Your task to perform on an android device: open the mobile data screen to see how much data has been used Image 0: 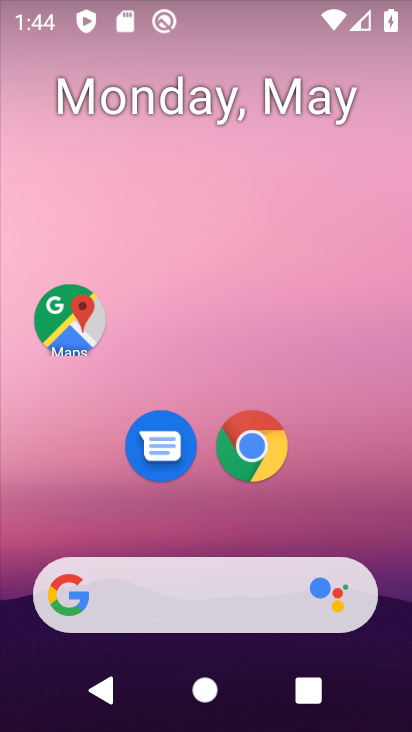
Step 0: press home button
Your task to perform on an android device: open the mobile data screen to see how much data has been used Image 1: 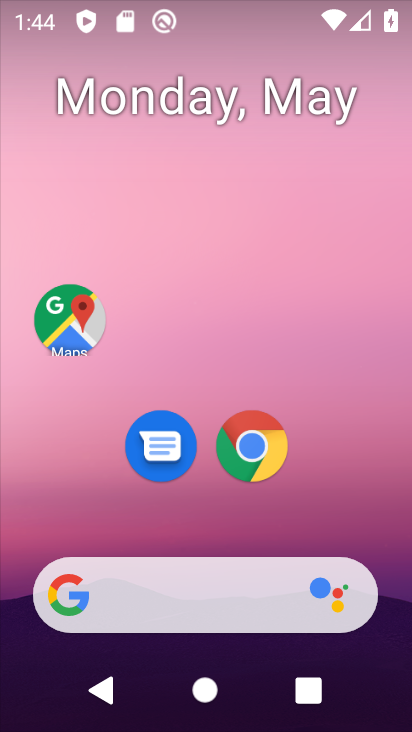
Step 1: drag from (367, 513) to (369, 171)
Your task to perform on an android device: open the mobile data screen to see how much data has been used Image 2: 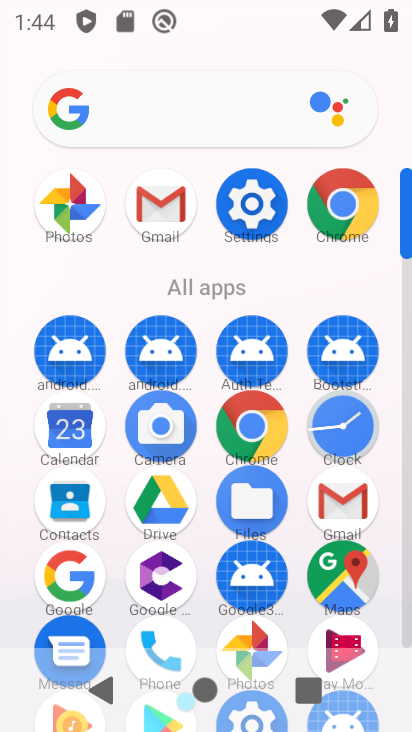
Step 2: click (249, 215)
Your task to perform on an android device: open the mobile data screen to see how much data has been used Image 3: 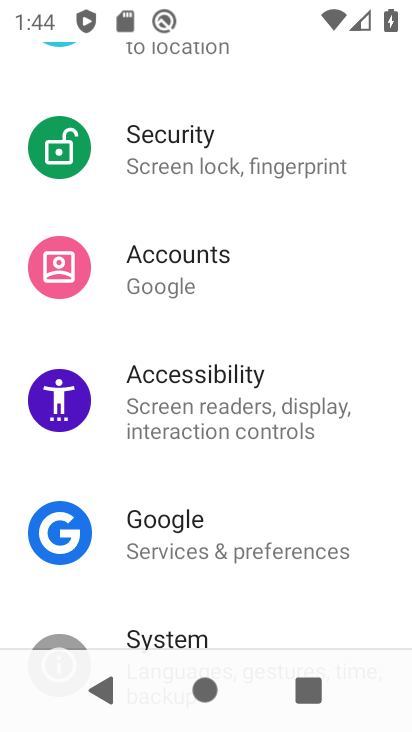
Step 3: drag from (239, 151) to (219, 554)
Your task to perform on an android device: open the mobile data screen to see how much data has been used Image 4: 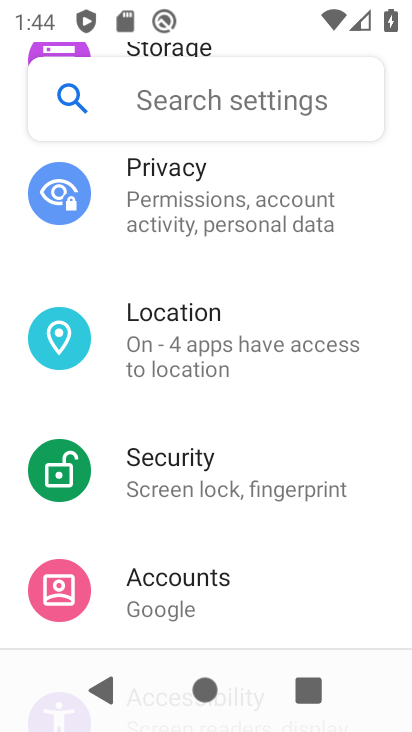
Step 4: drag from (240, 282) to (257, 591)
Your task to perform on an android device: open the mobile data screen to see how much data has been used Image 5: 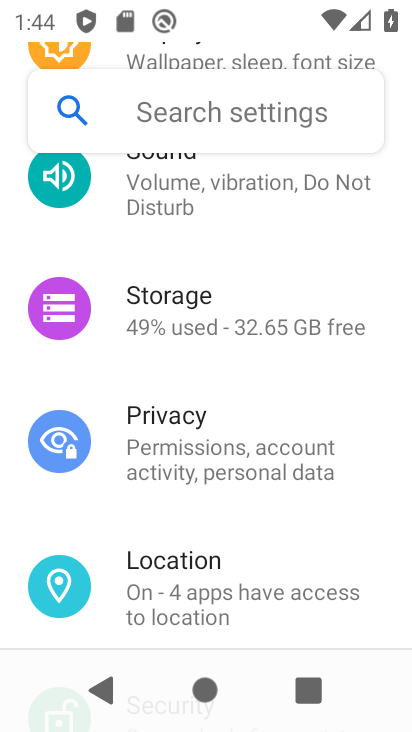
Step 5: drag from (254, 223) to (267, 608)
Your task to perform on an android device: open the mobile data screen to see how much data has been used Image 6: 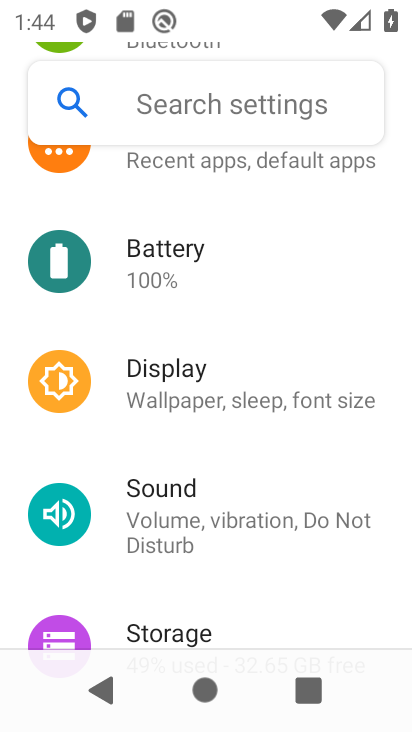
Step 6: drag from (231, 218) to (266, 595)
Your task to perform on an android device: open the mobile data screen to see how much data has been used Image 7: 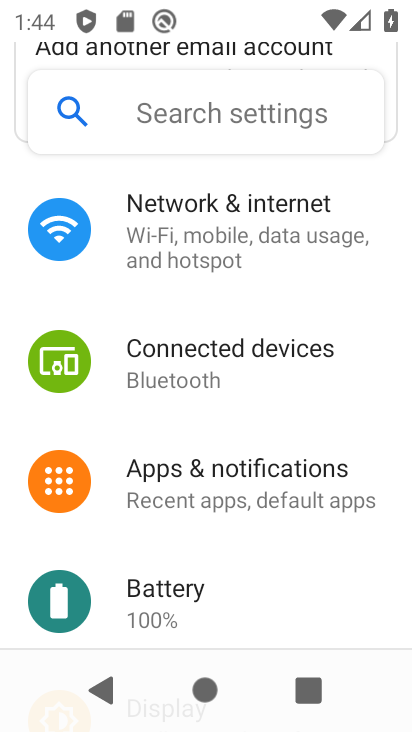
Step 7: drag from (241, 240) to (270, 587)
Your task to perform on an android device: open the mobile data screen to see how much data has been used Image 8: 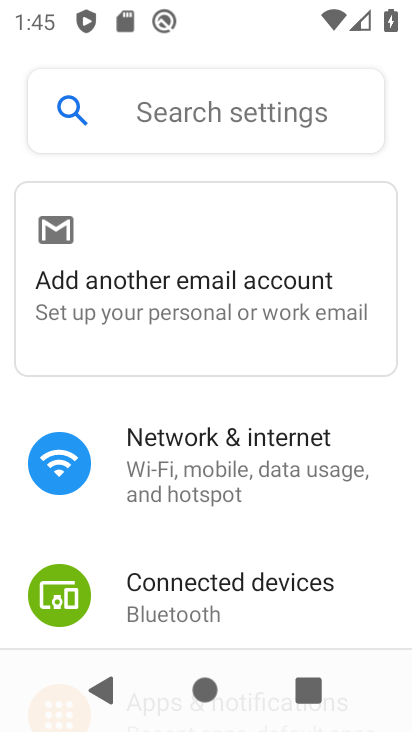
Step 8: click (229, 476)
Your task to perform on an android device: open the mobile data screen to see how much data has been used Image 9: 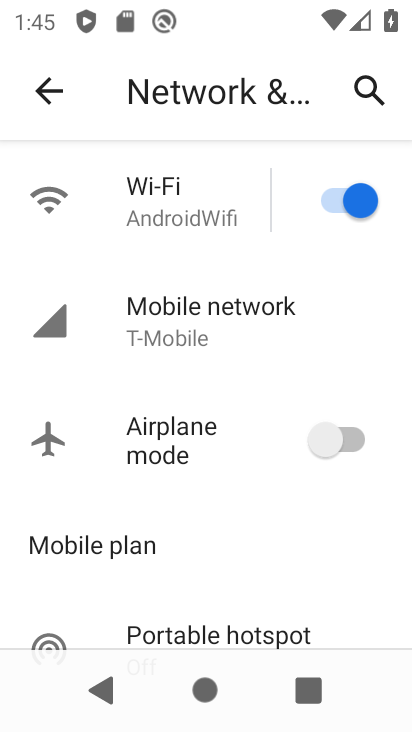
Step 9: drag from (204, 550) to (198, 289)
Your task to perform on an android device: open the mobile data screen to see how much data has been used Image 10: 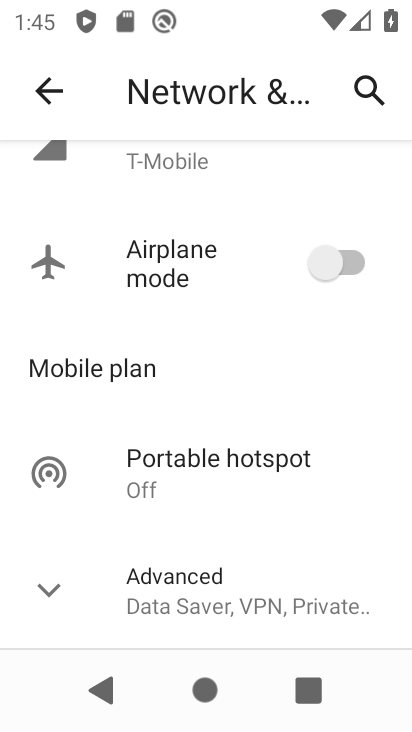
Step 10: drag from (190, 324) to (204, 506)
Your task to perform on an android device: open the mobile data screen to see how much data has been used Image 11: 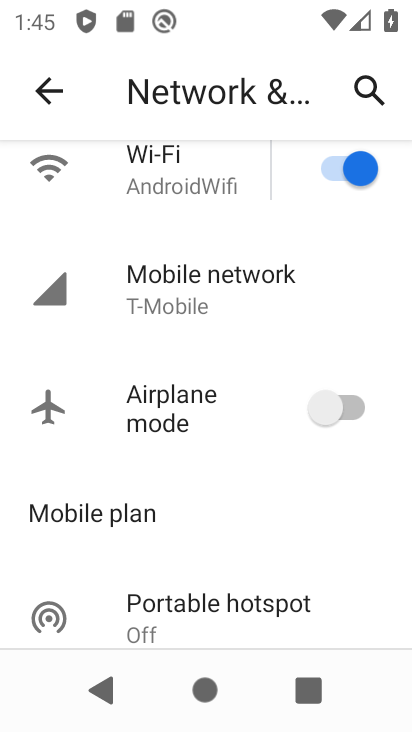
Step 11: click (187, 295)
Your task to perform on an android device: open the mobile data screen to see how much data has been used Image 12: 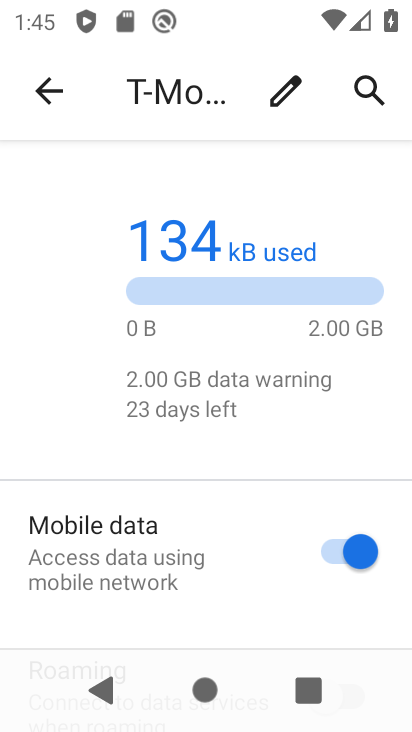
Step 12: task complete